Your task to perform on an android device: turn off location Image 0: 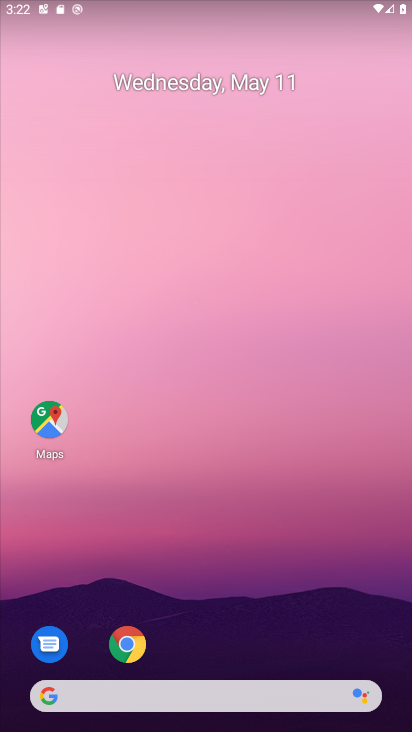
Step 0: drag from (246, 670) to (61, 141)
Your task to perform on an android device: turn off location Image 1: 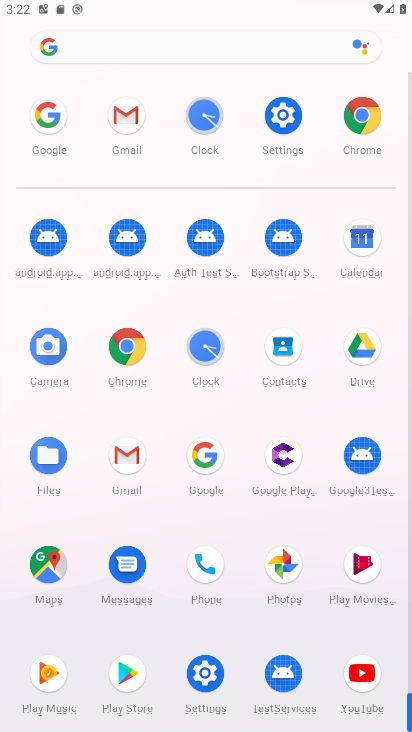
Step 1: click (210, 672)
Your task to perform on an android device: turn off location Image 2: 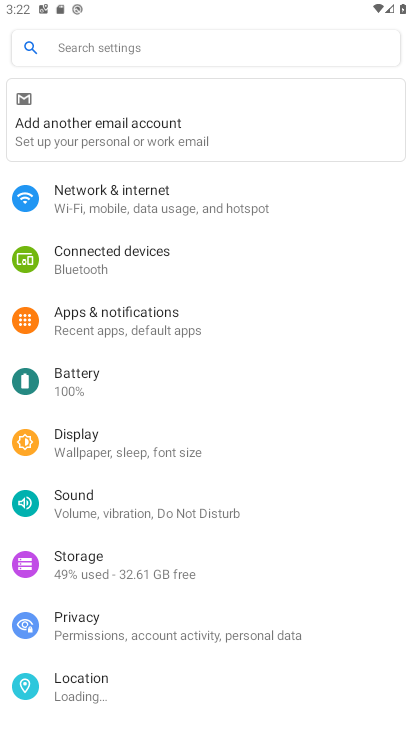
Step 2: click (39, 694)
Your task to perform on an android device: turn off location Image 3: 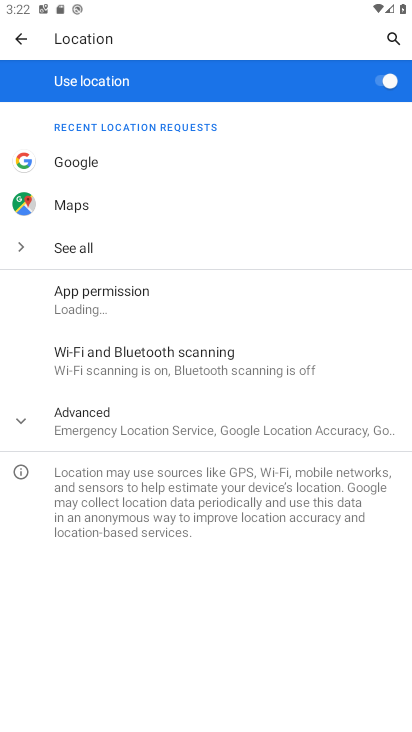
Step 3: click (384, 81)
Your task to perform on an android device: turn off location Image 4: 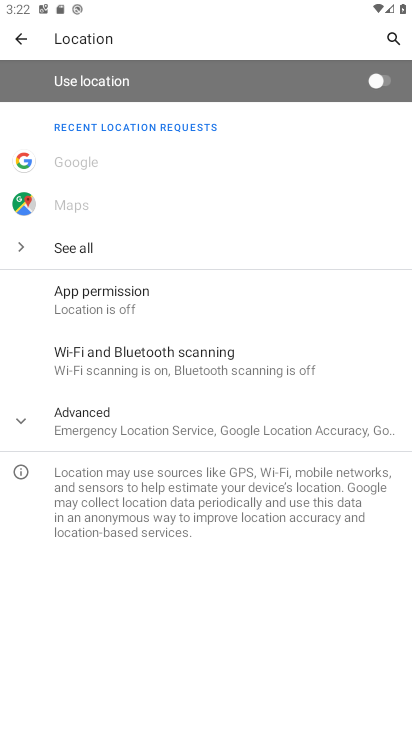
Step 4: task complete